Your task to perform on an android device: uninstall "Viber Messenger" Image 0: 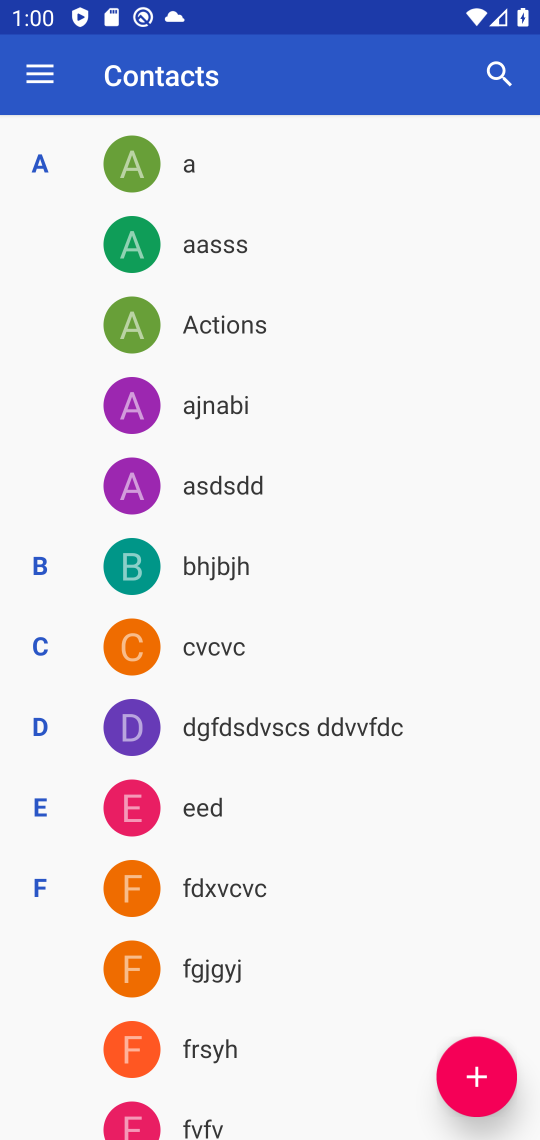
Step 0: press home button
Your task to perform on an android device: uninstall "Viber Messenger" Image 1: 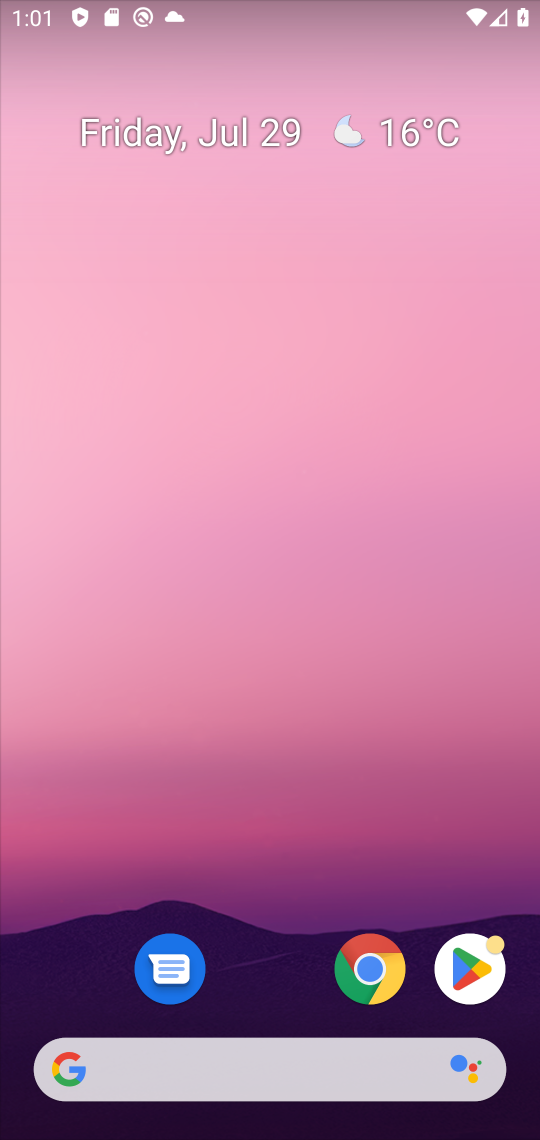
Step 1: click (479, 958)
Your task to perform on an android device: uninstall "Viber Messenger" Image 2: 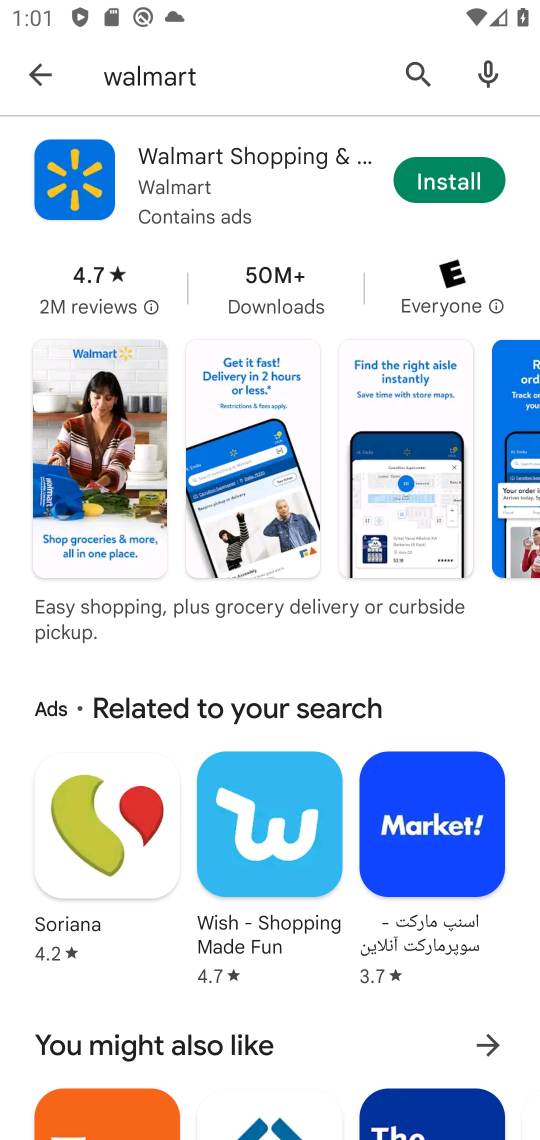
Step 2: click (427, 75)
Your task to perform on an android device: uninstall "Viber Messenger" Image 3: 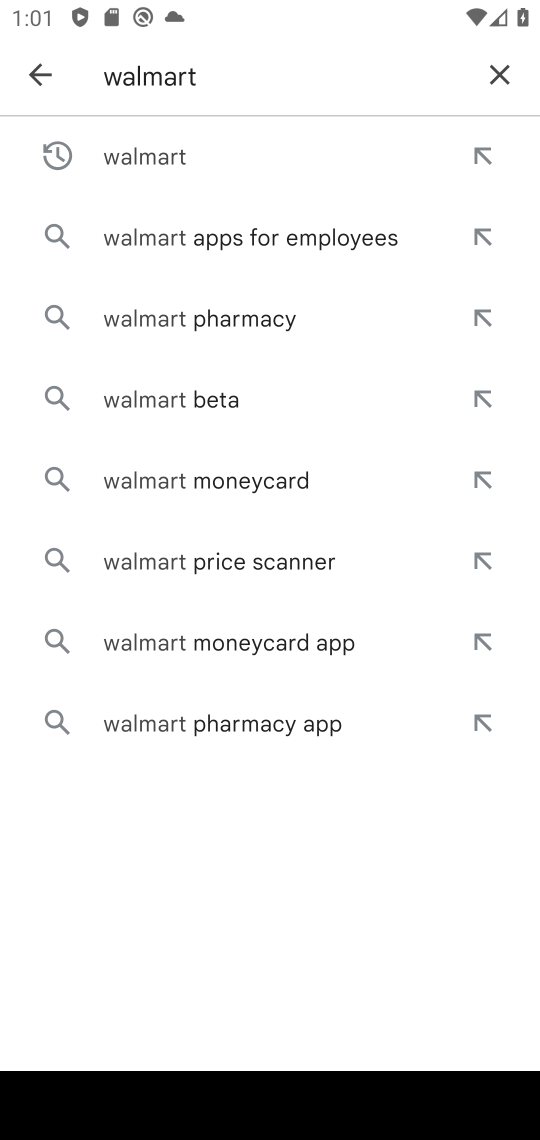
Step 3: click (487, 70)
Your task to perform on an android device: uninstall "Viber Messenger" Image 4: 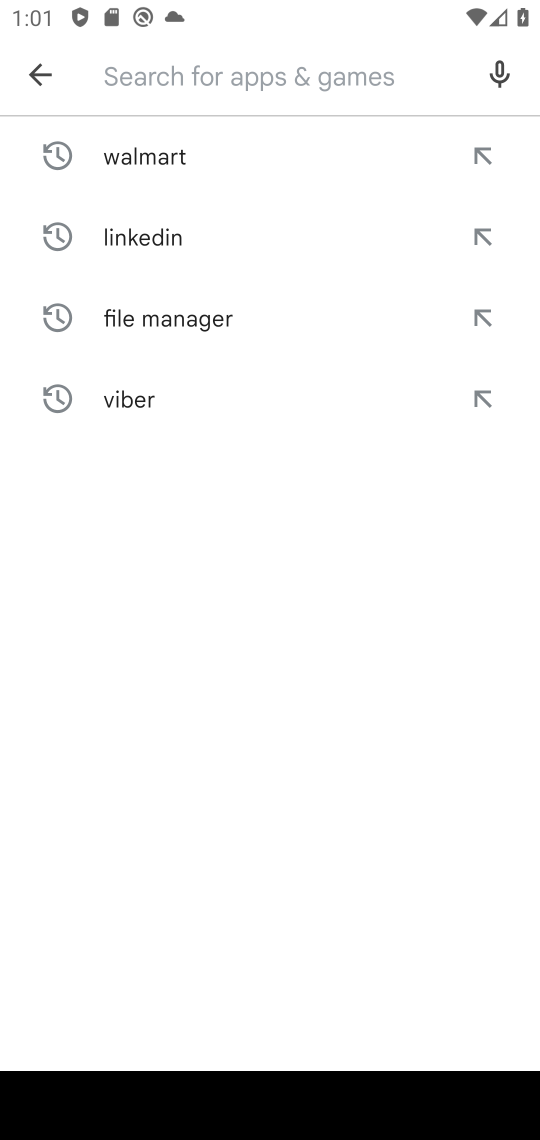
Step 4: type "viber"
Your task to perform on an android device: uninstall "Viber Messenger" Image 5: 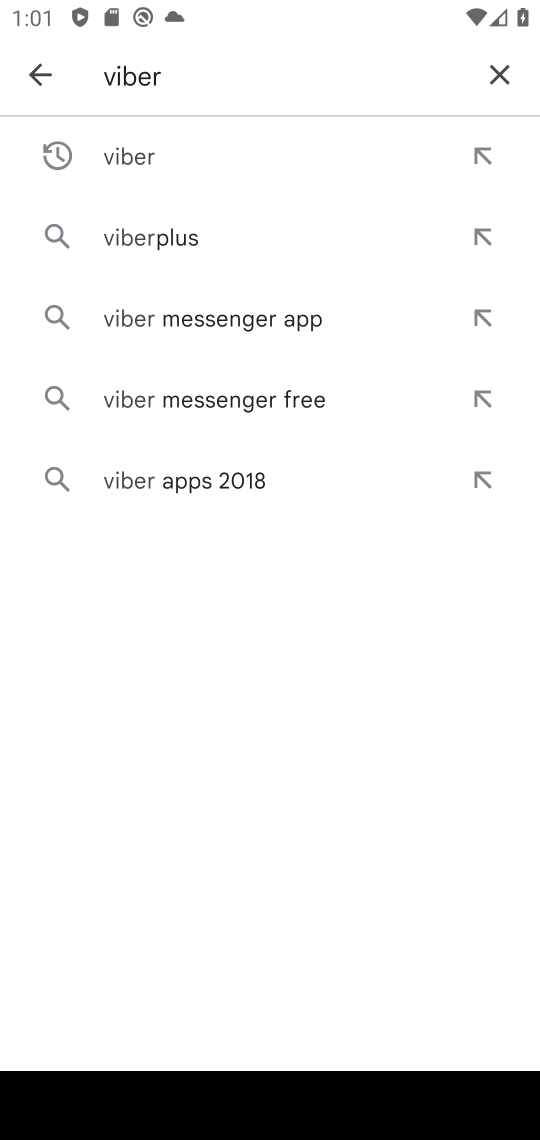
Step 5: click (182, 164)
Your task to perform on an android device: uninstall "Viber Messenger" Image 6: 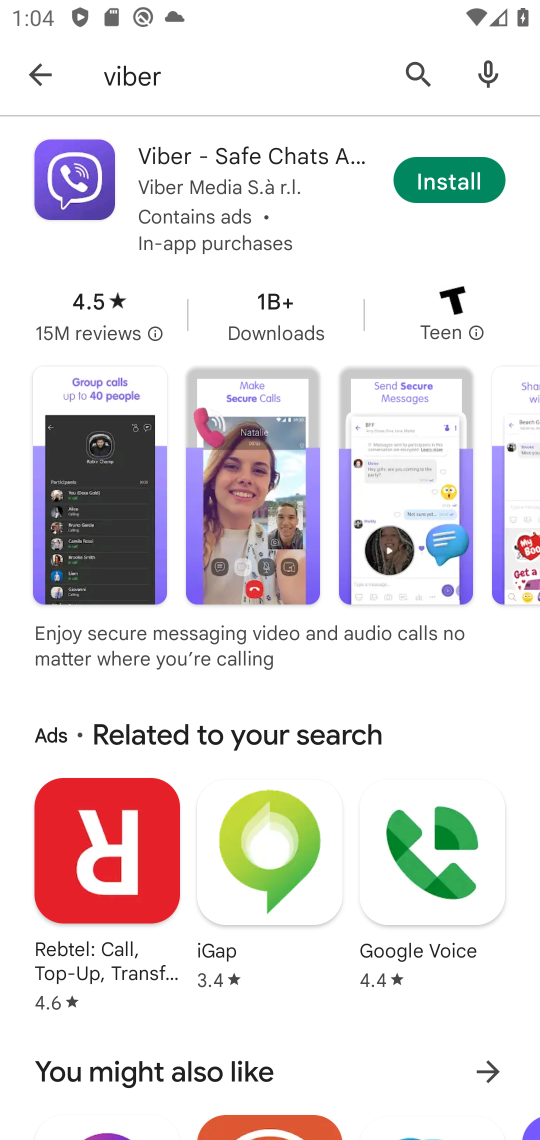
Step 6: task complete